Your task to perform on an android device: Is it going to rain today? Image 0: 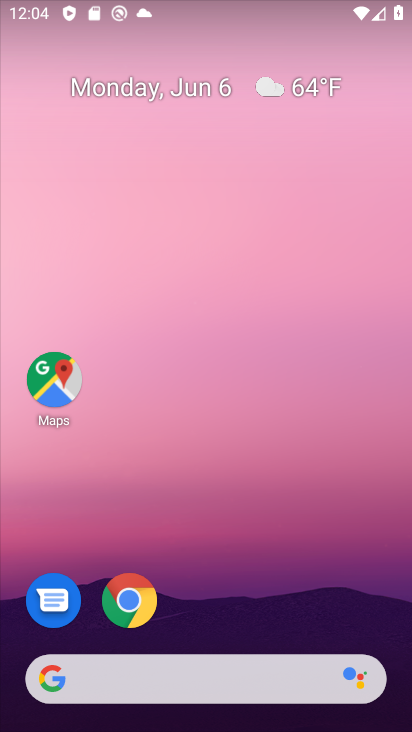
Step 0: click (306, 81)
Your task to perform on an android device: Is it going to rain today? Image 1: 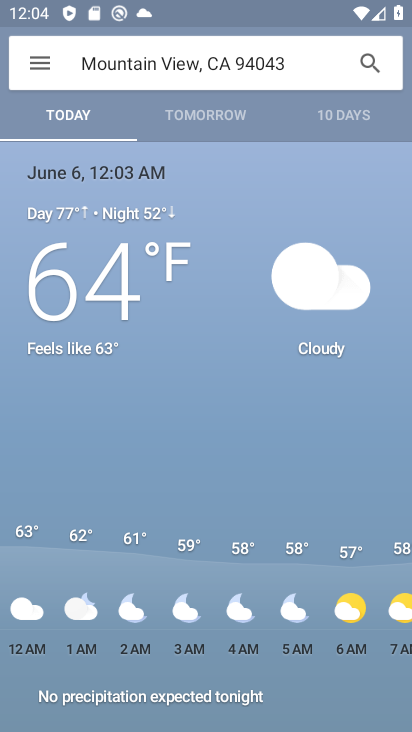
Step 1: task complete